Your task to perform on an android device: Search for pizza restaurants on Maps Image 0: 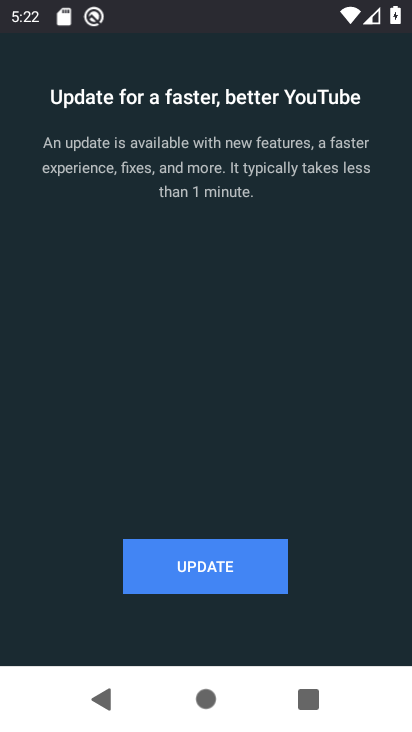
Step 0: press home button
Your task to perform on an android device: Search for pizza restaurants on Maps Image 1: 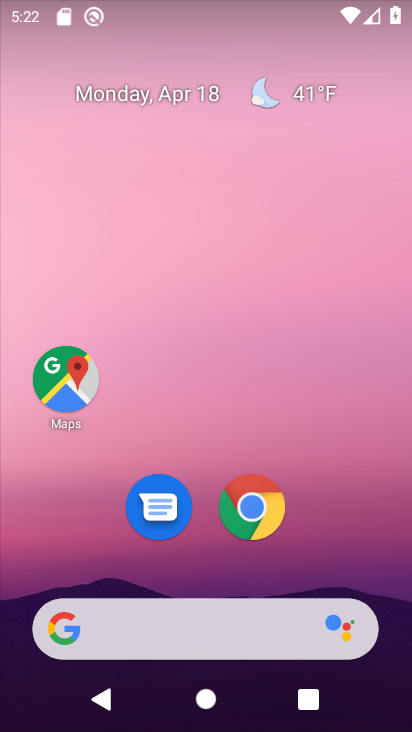
Step 1: drag from (379, 551) to (377, 10)
Your task to perform on an android device: Search for pizza restaurants on Maps Image 2: 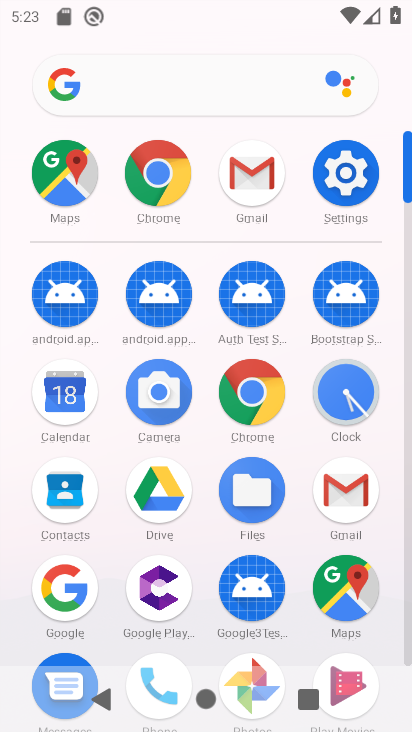
Step 2: click (349, 593)
Your task to perform on an android device: Search for pizza restaurants on Maps Image 3: 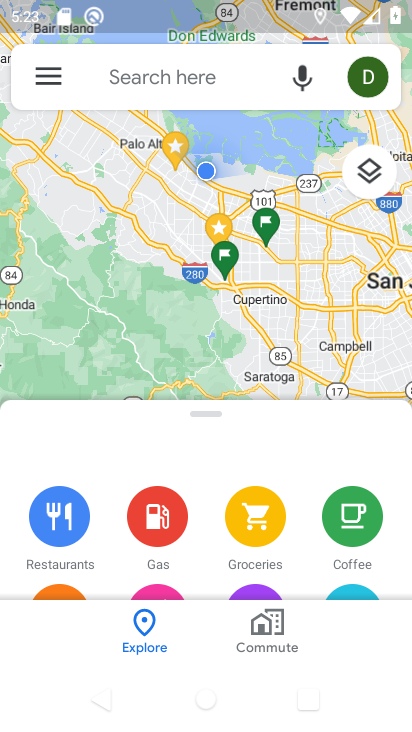
Step 3: click (36, 75)
Your task to perform on an android device: Search for pizza restaurants on Maps Image 4: 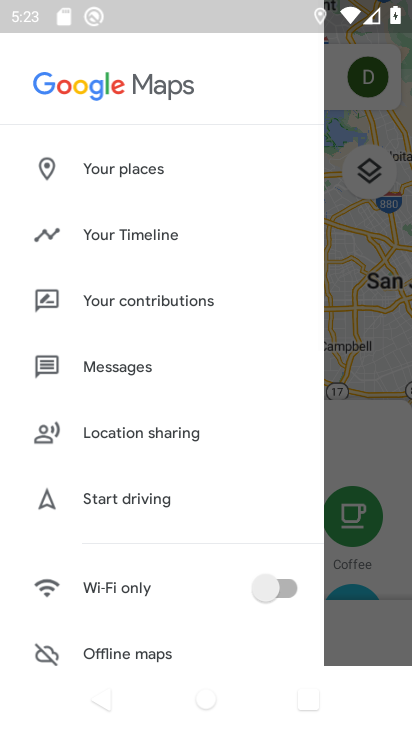
Step 4: click (406, 233)
Your task to perform on an android device: Search for pizza restaurants on Maps Image 5: 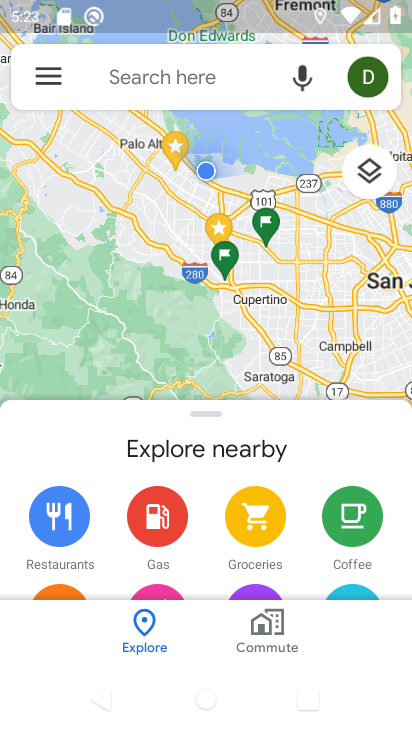
Step 5: click (329, 73)
Your task to perform on an android device: Search for pizza restaurants on Maps Image 6: 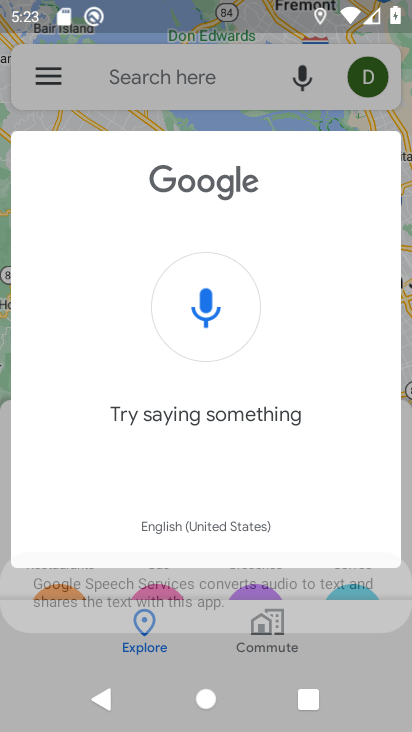
Step 6: drag from (329, 73) to (224, 73)
Your task to perform on an android device: Search for pizza restaurants on Maps Image 7: 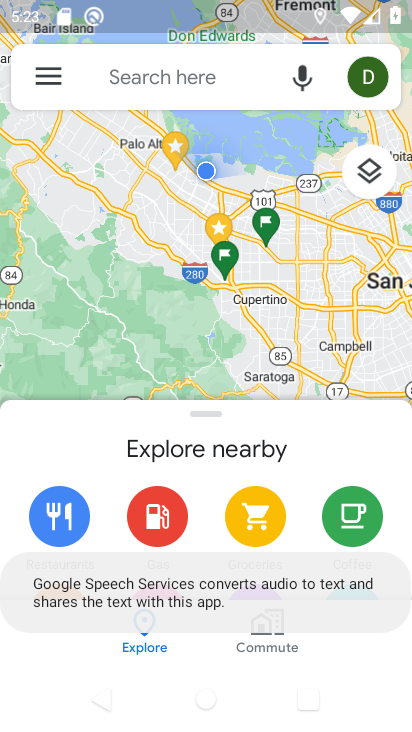
Step 7: click (329, 73)
Your task to perform on an android device: Search for pizza restaurants on Maps Image 8: 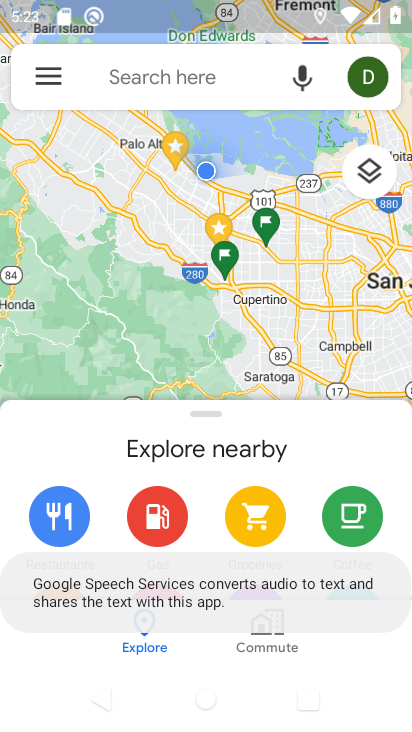
Step 8: drag from (250, 73) to (146, 73)
Your task to perform on an android device: Search for pizza restaurants on Maps Image 9: 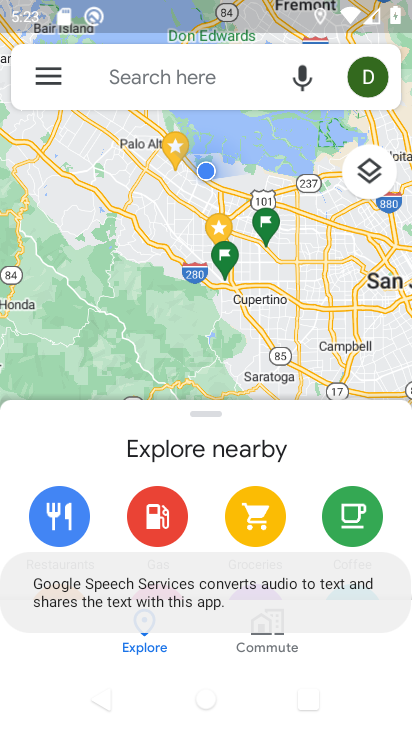
Step 9: click (226, 81)
Your task to perform on an android device: Search for pizza restaurants on Maps Image 10: 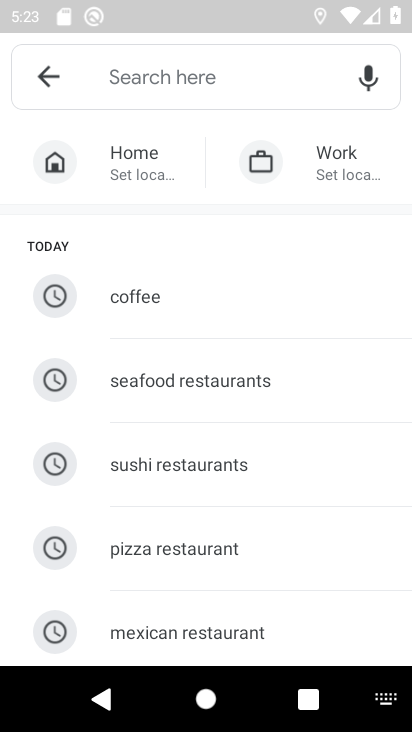
Step 10: type "pizza restaurant"
Your task to perform on an android device: Search for pizza restaurants on Maps Image 11: 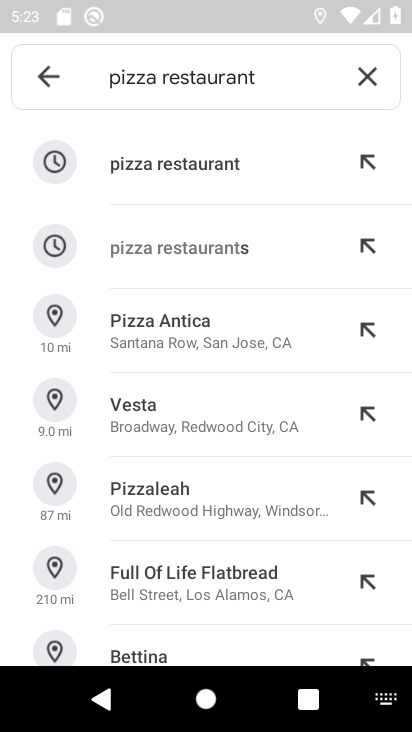
Step 11: click (139, 160)
Your task to perform on an android device: Search for pizza restaurants on Maps Image 12: 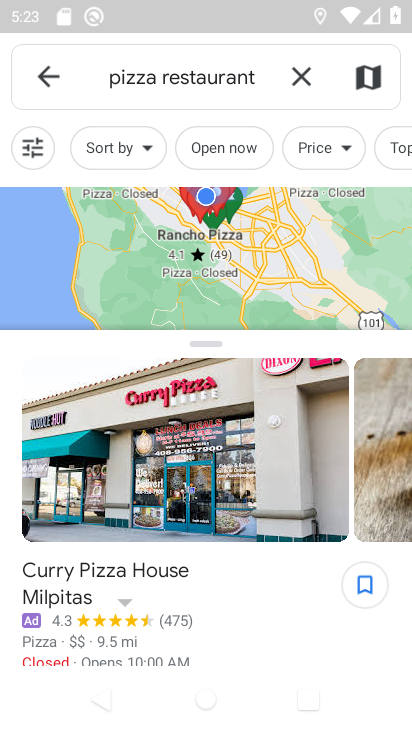
Step 12: task complete